Your task to perform on an android device: all mails in gmail Image 0: 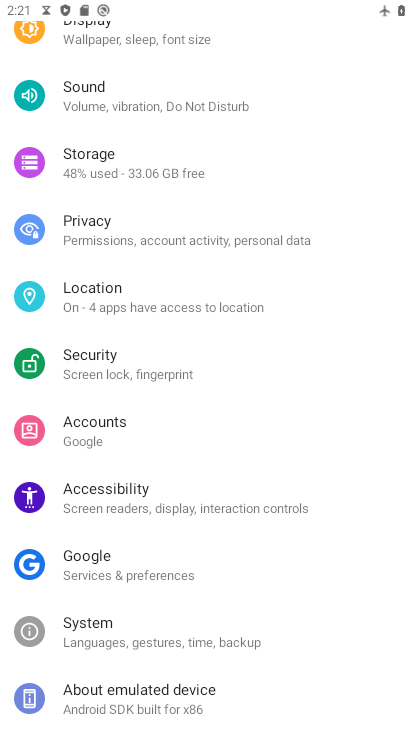
Step 0: press home button
Your task to perform on an android device: all mails in gmail Image 1: 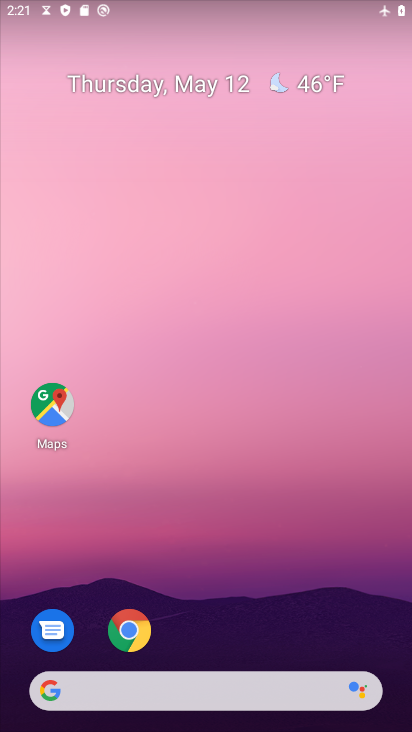
Step 1: drag from (241, 637) to (308, 92)
Your task to perform on an android device: all mails in gmail Image 2: 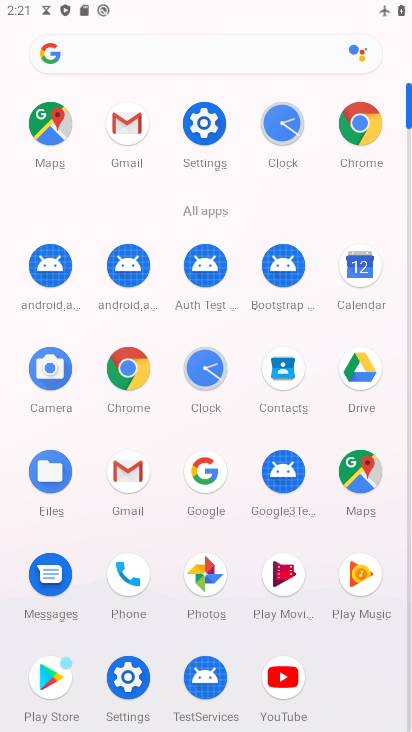
Step 2: click (127, 483)
Your task to perform on an android device: all mails in gmail Image 3: 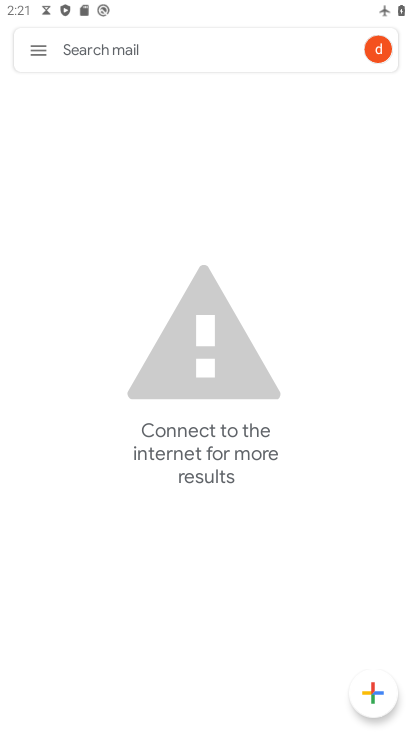
Step 3: task complete